Your task to perform on an android device: Open display settings Image 0: 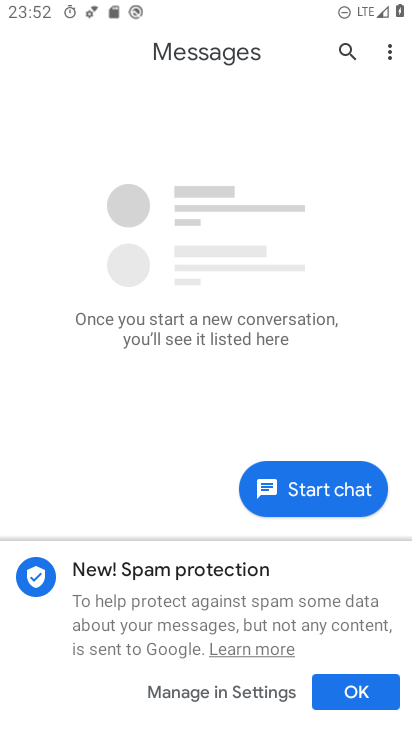
Step 0: press home button
Your task to perform on an android device: Open display settings Image 1: 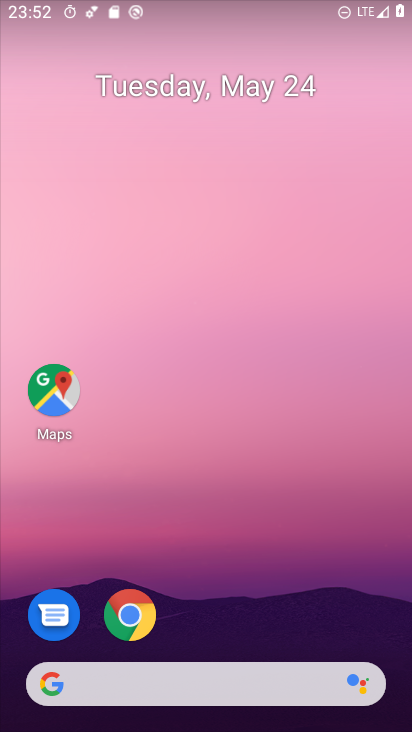
Step 1: drag from (252, 687) to (250, 0)
Your task to perform on an android device: Open display settings Image 2: 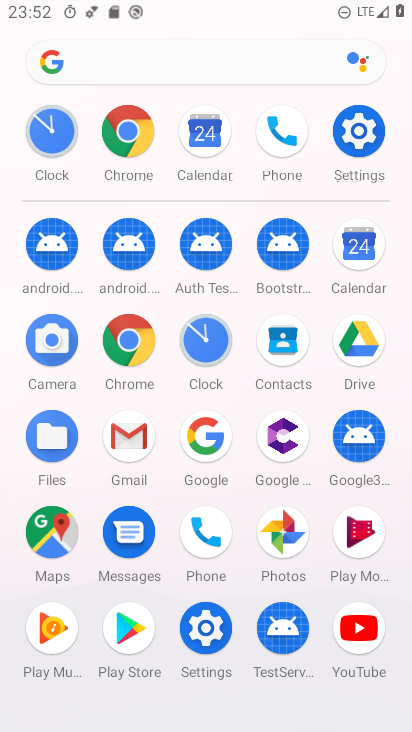
Step 2: click (355, 138)
Your task to perform on an android device: Open display settings Image 3: 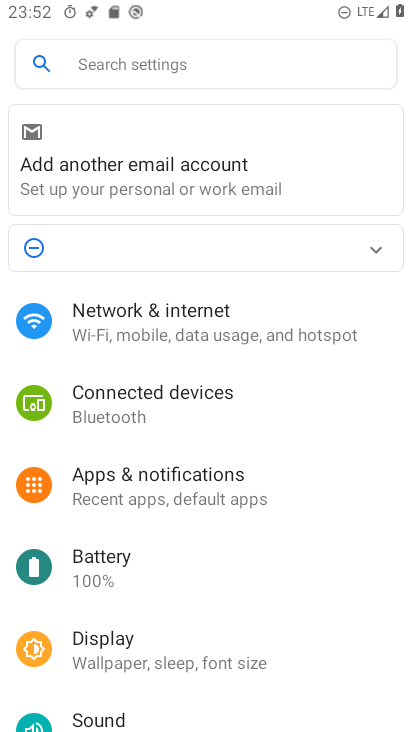
Step 3: click (129, 640)
Your task to perform on an android device: Open display settings Image 4: 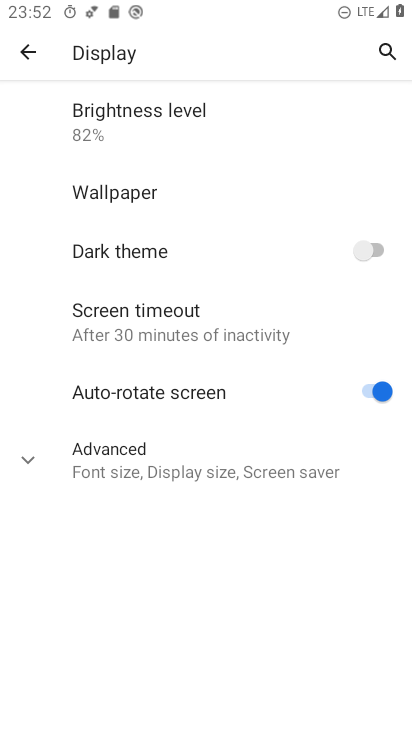
Step 4: task complete